Your task to perform on an android device: Show me popular games on the Play Store Image 0: 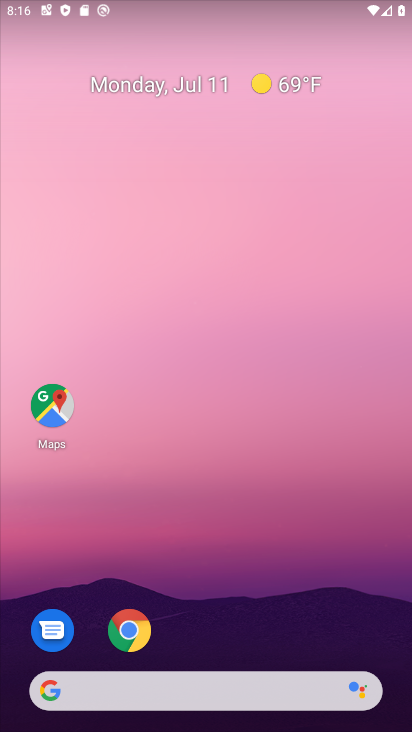
Step 0: drag from (213, 680) to (209, 129)
Your task to perform on an android device: Show me popular games on the Play Store Image 1: 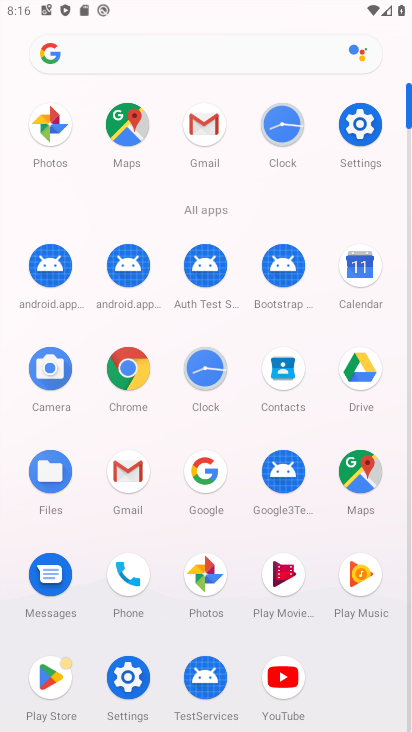
Step 1: click (31, 689)
Your task to perform on an android device: Show me popular games on the Play Store Image 2: 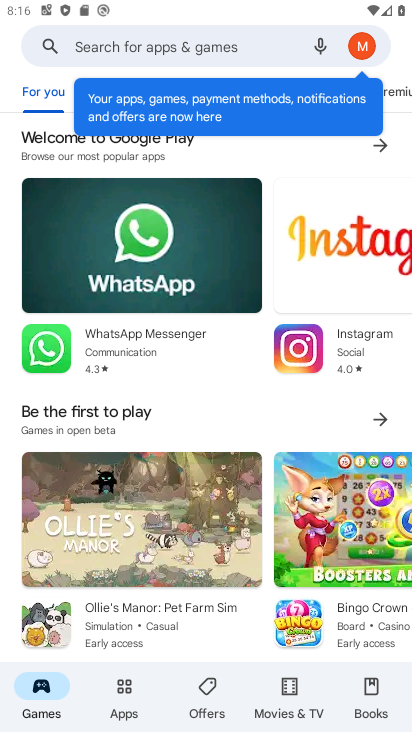
Step 2: drag from (263, 538) to (200, 182)
Your task to perform on an android device: Show me popular games on the Play Store Image 3: 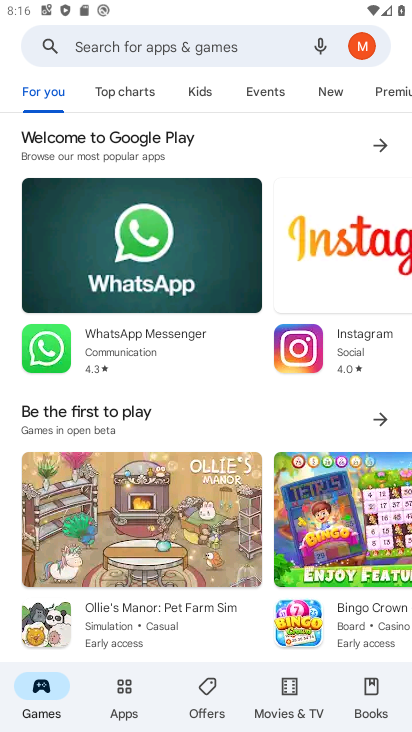
Step 3: drag from (198, 602) to (115, 228)
Your task to perform on an android device: Show me popular games on the Play Store Image 4: 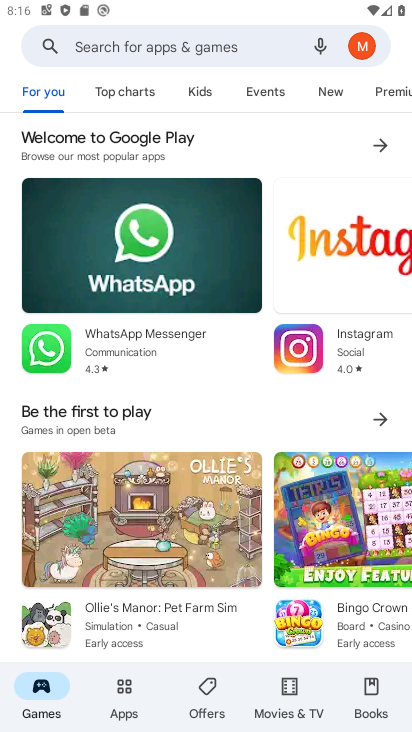
Step 4: drag from (183, 416) to (145, 46)
Your task to perform on an android device: Show me popular games on the Play Store Image 5: 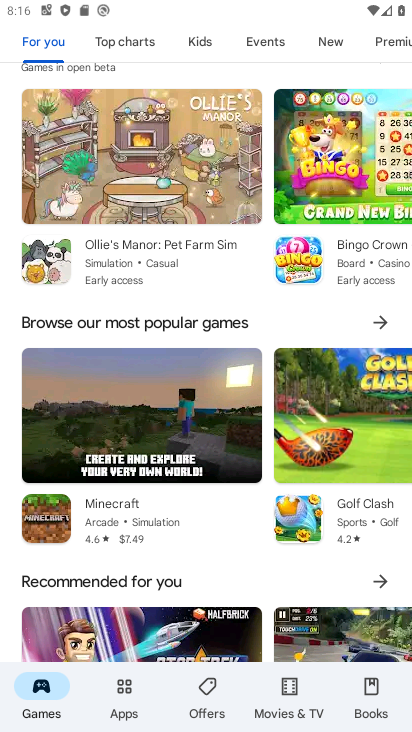
Step 5: click (169, 318)
Your task to perform on an android device: Show me popular games on the Play Store Image 6: 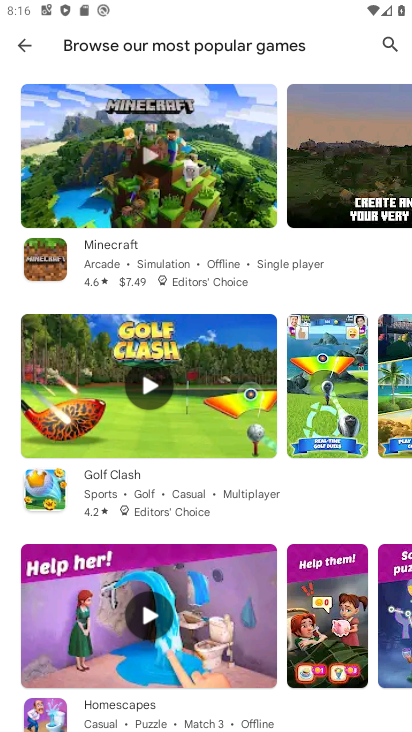
Step 6: task complete